Your task to perform on an android device: check android version Image 0: 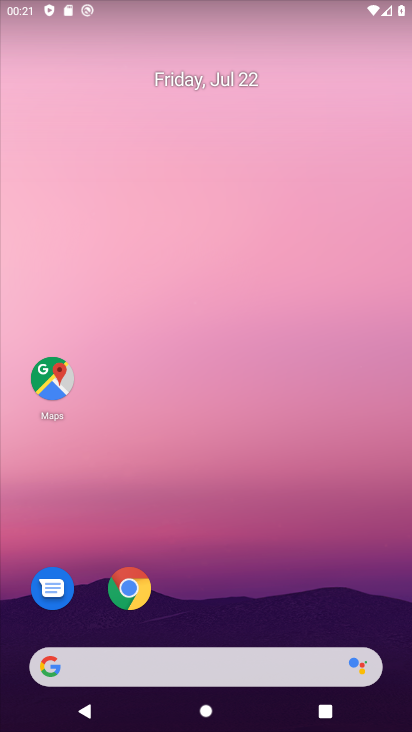
Step 0: drag from (240, 559) to (287, 56)
Your task to perform on an android device: check android version Image 1: 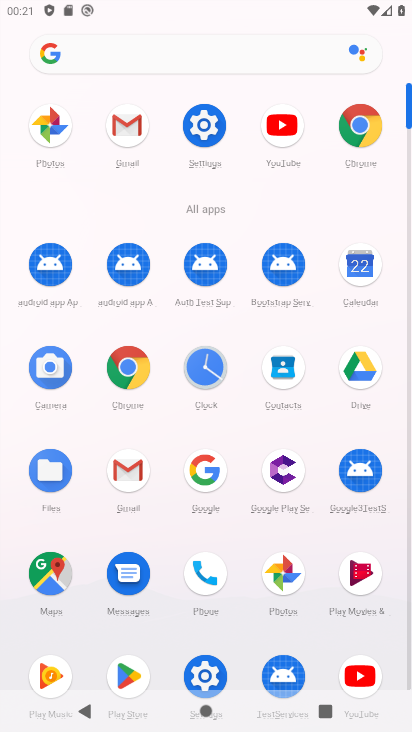
Step 1: click (208, 128)
Your task to perform on an android device: check android version Image 2: 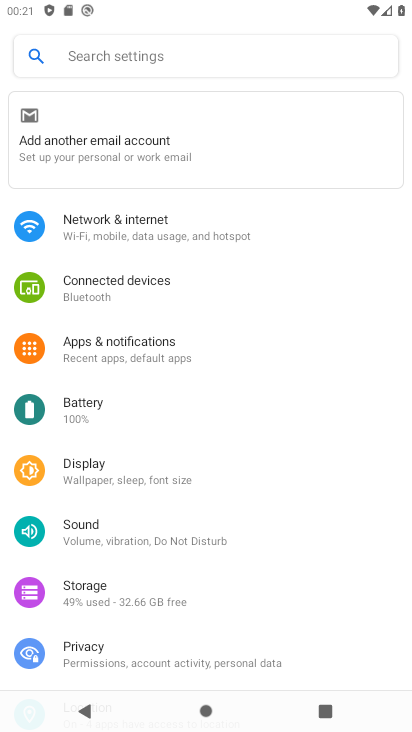
Step 2: drag from (155, 617) to (183, 64)
Your task to perform on an android device: check android version Image 3: 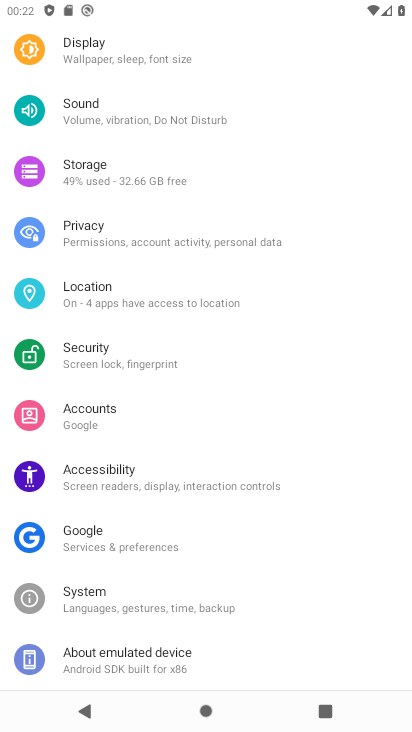
Step 3: drag from (128, 643) to (172, 93)
Your task to perform on an android device: check android version Image 4: 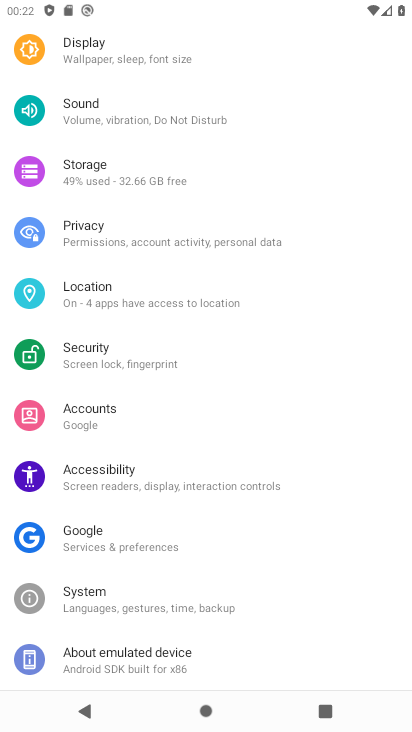
Step 4: click (129, 659)
Your task to perform on an android device: check android version Image 5: 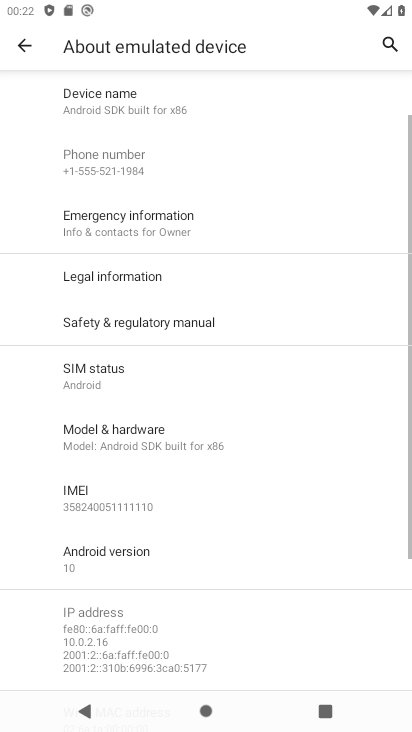
Step 5: click (117, 564)
Your task to perform on an android device: check android version Image 6: 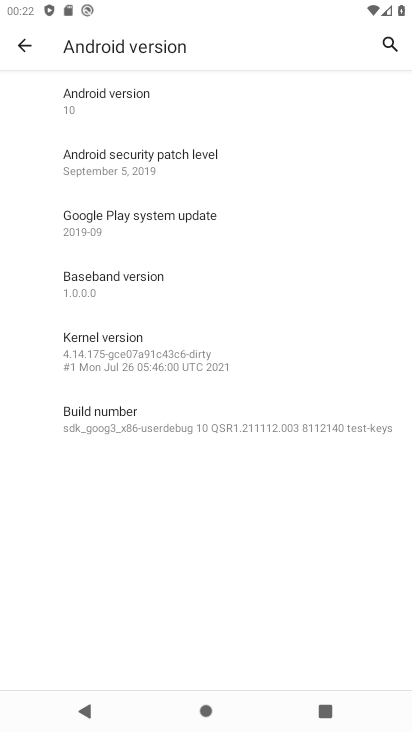
Step 6: click (140, 102)
Your task to perform on an android device: check android version Image 7: 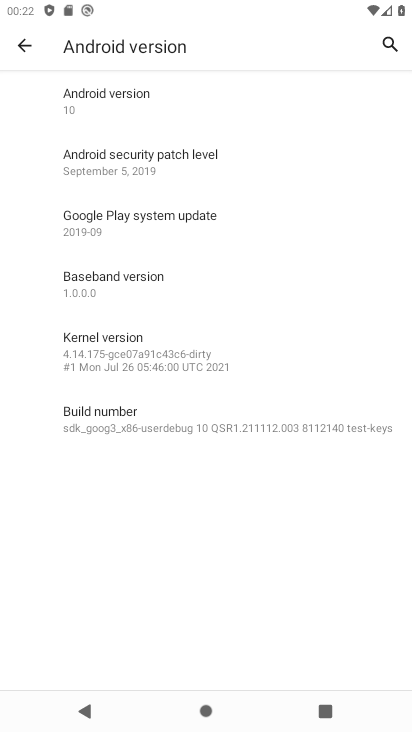
Step 7: task complete